Your task to perform on an android device: turn off location history Image 0: 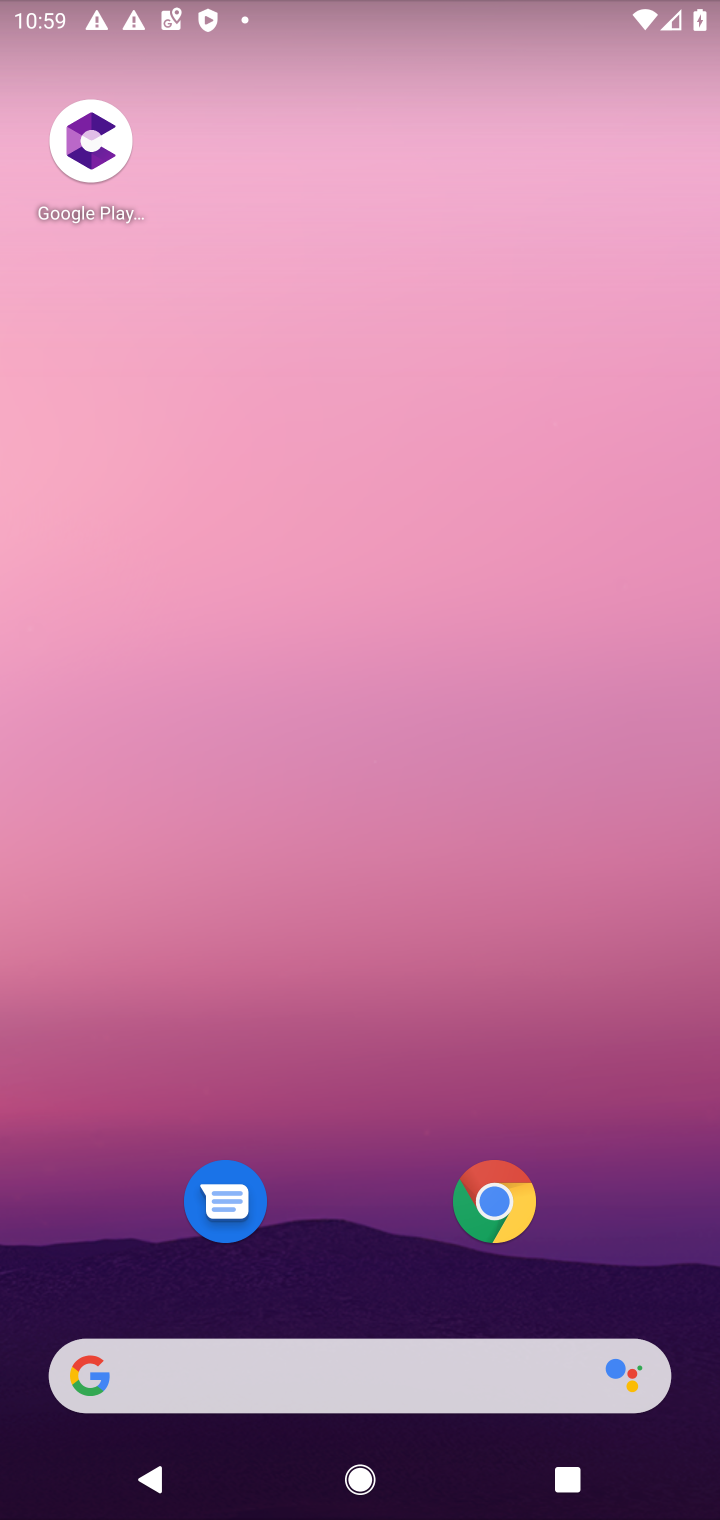
Step 0: press home button
Your task to perform on an android device: turn off location history Image 1: 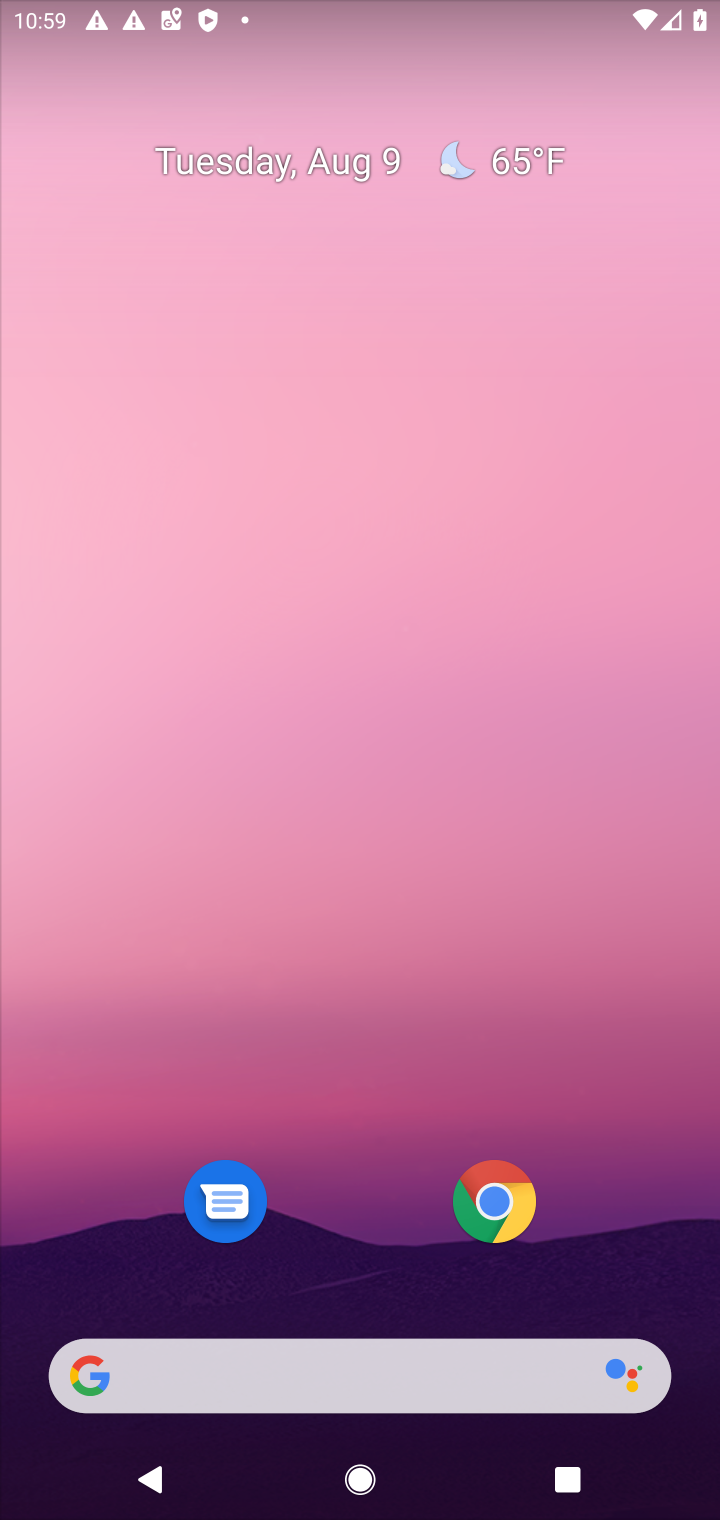
Step 1: drag from (379, 1105) to (440, 142)
Your task to perform on an android device: turn off location history Image 2: 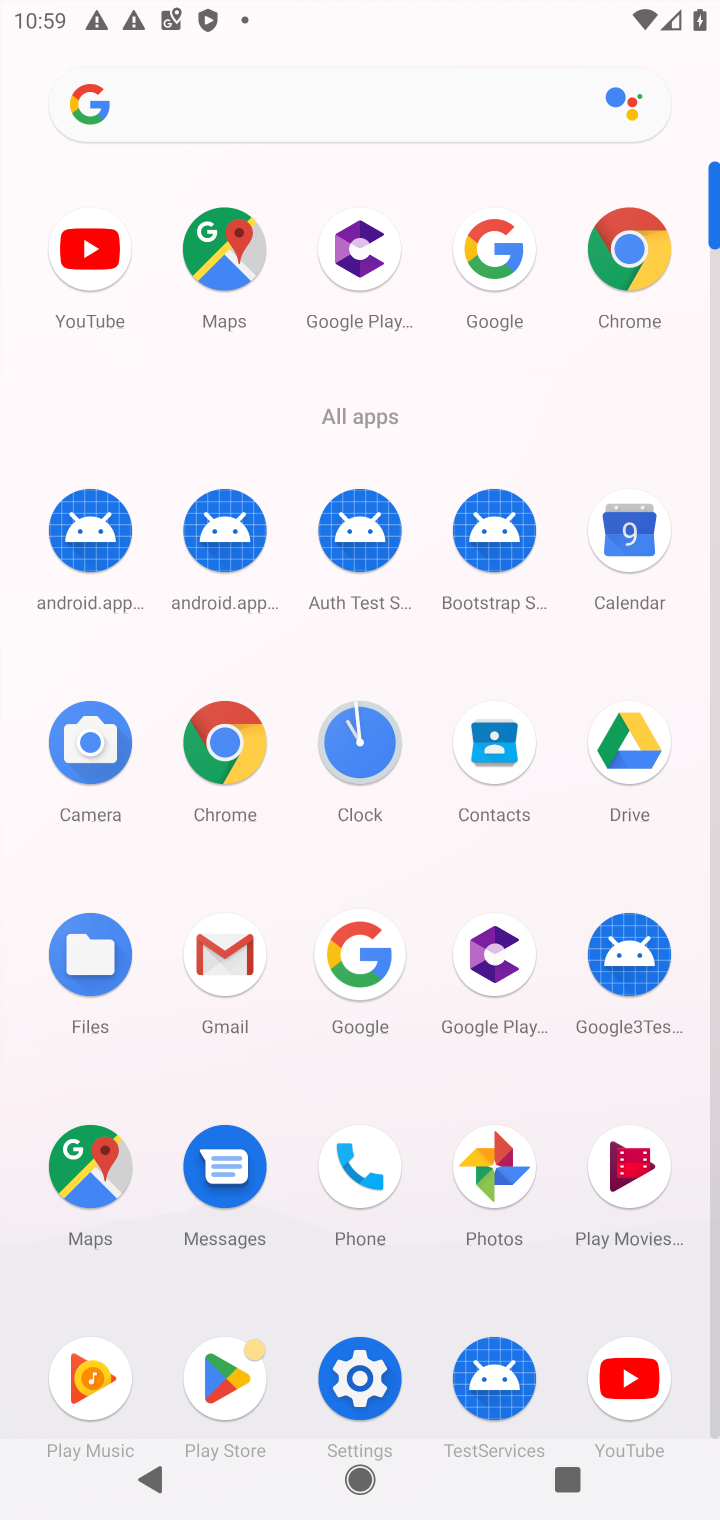
Step 2: click (342, 1352)
Your task to perform on an android device: turn off location history Image 3: 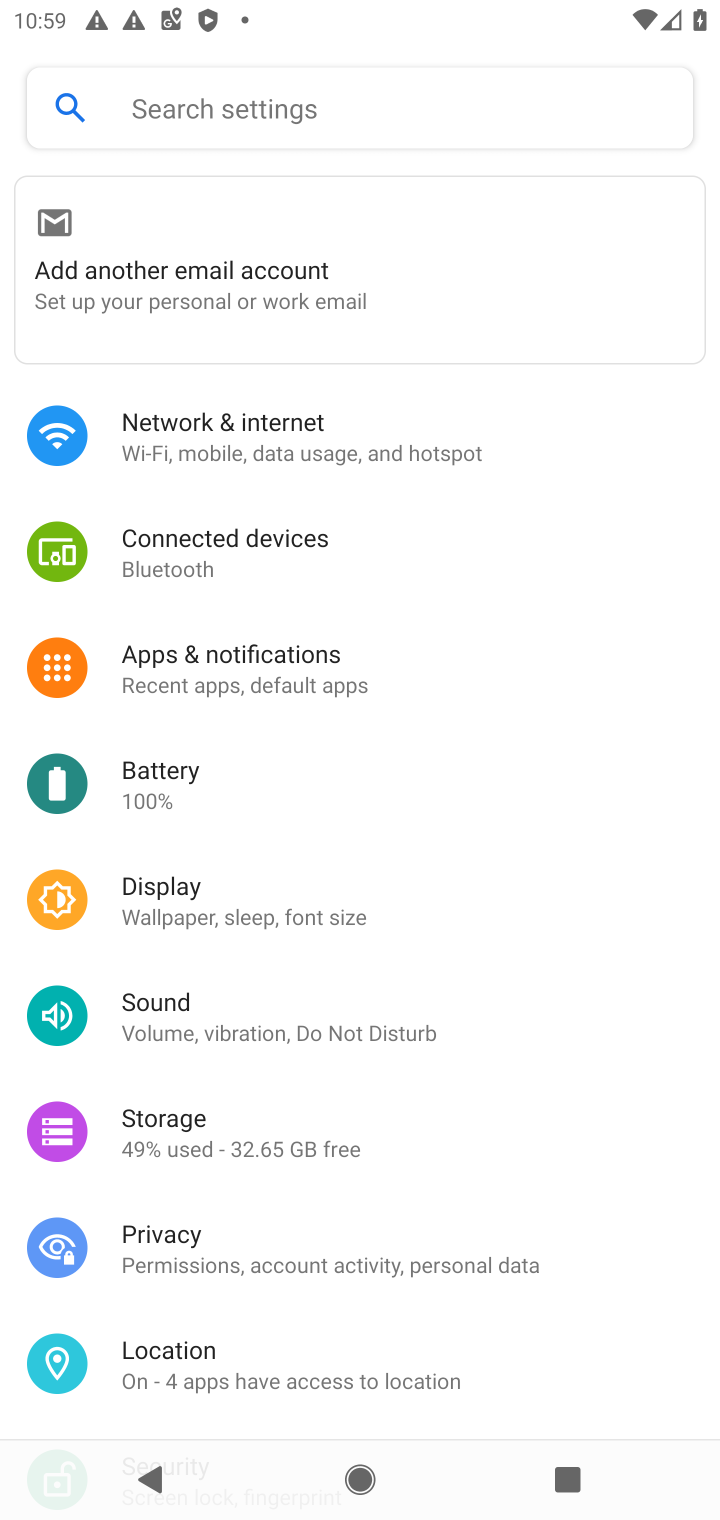
Step 3: click (161, 1368)
Your task to perform on an android device: turn off location history Image 4: 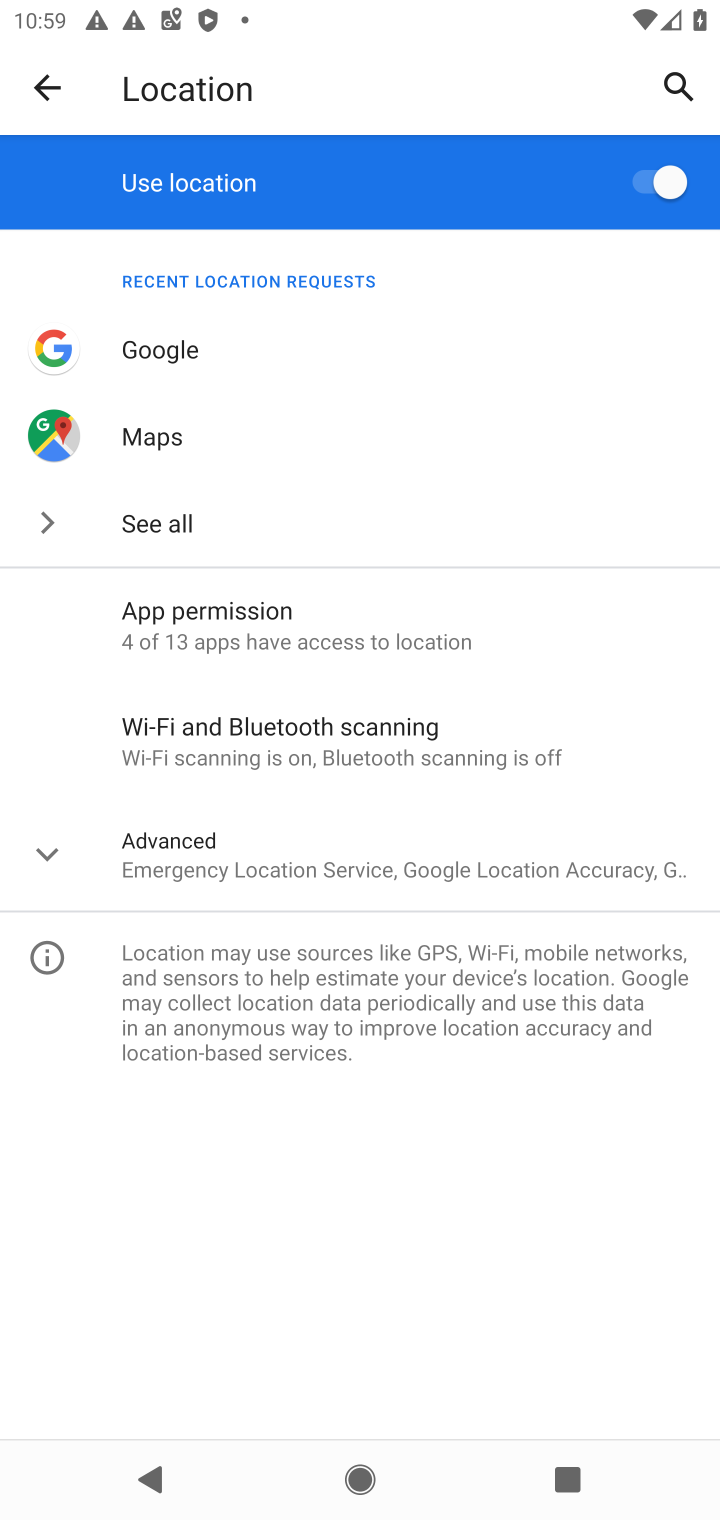
Step 4: click (53, 856)
Your task to perform on an android device: turn off location history Image 5: 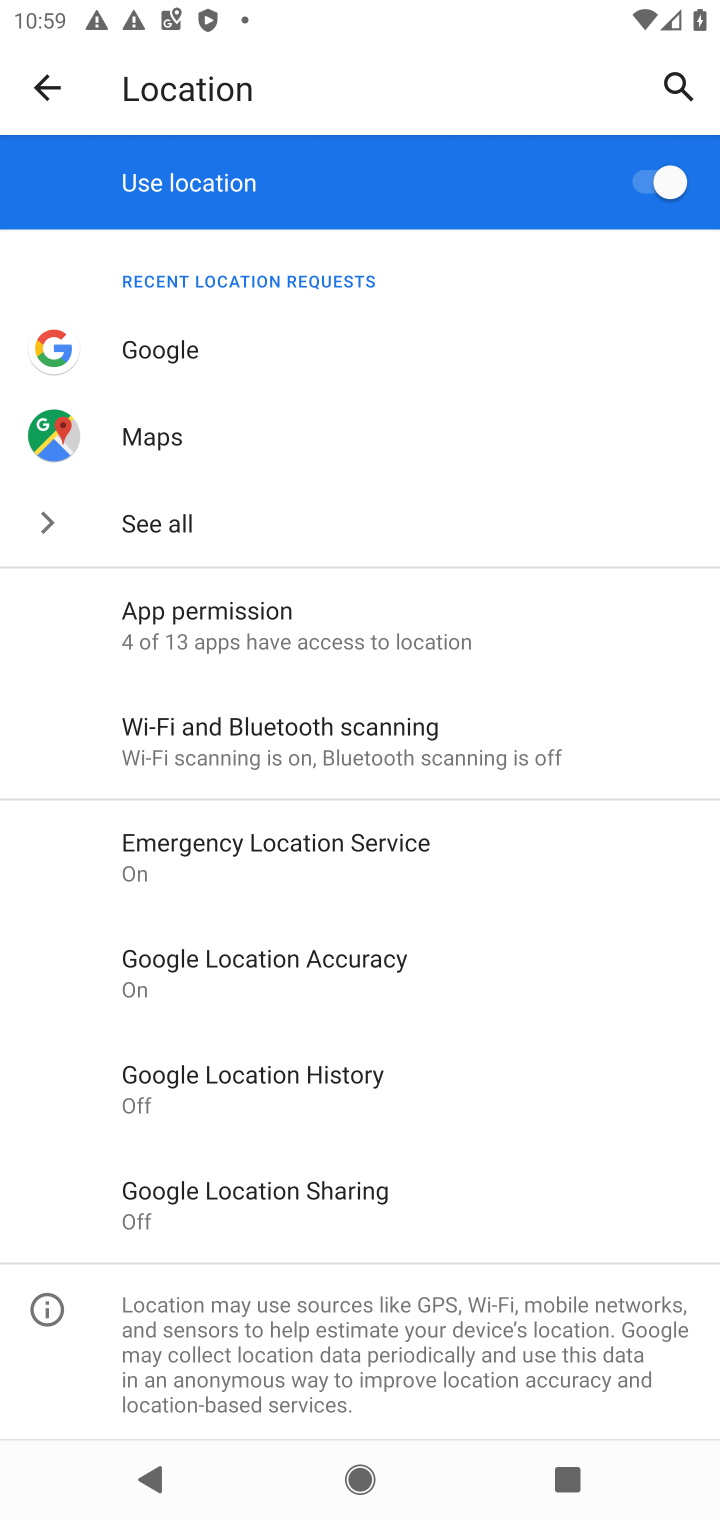
Step 5: click (290, 1068)
Your task to perform on an android device: turn off location history Image 6: 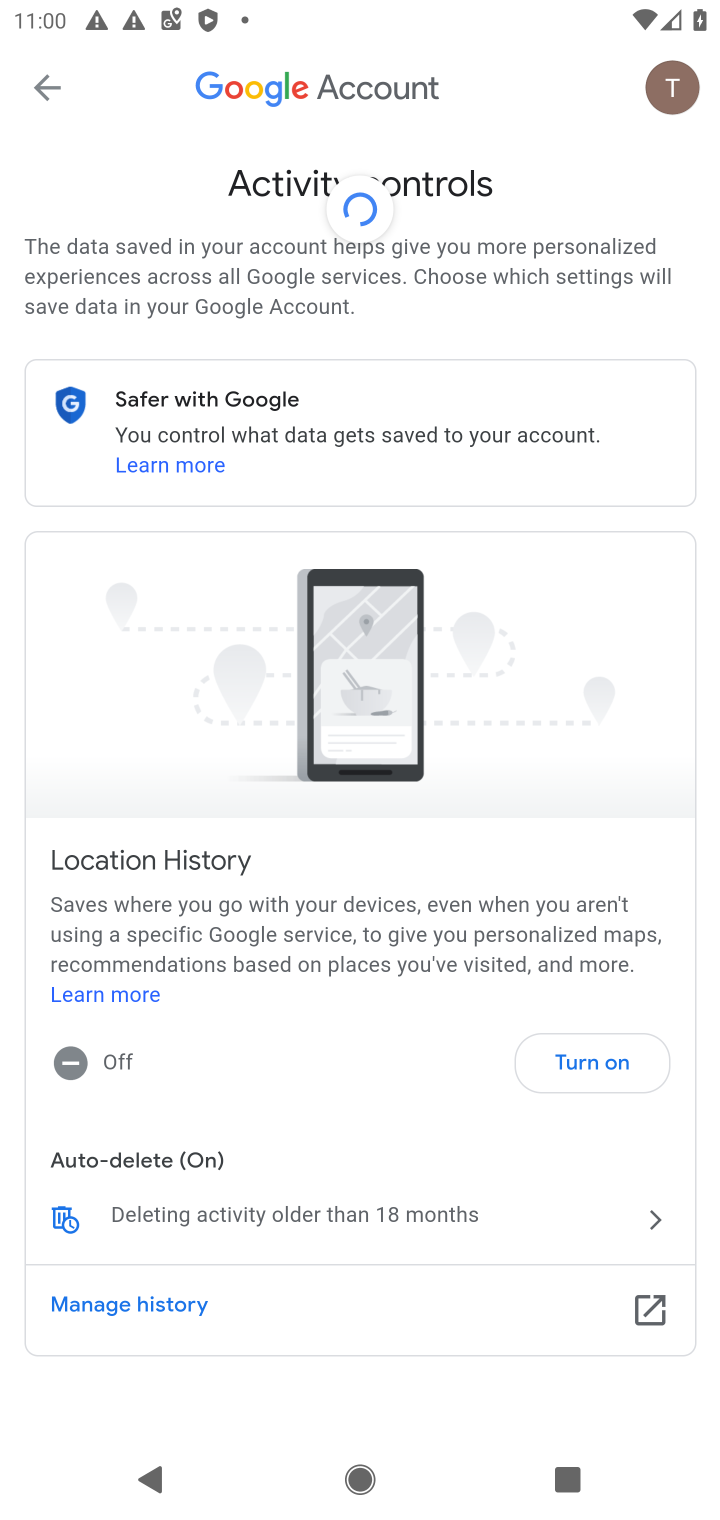
Step 6: task complete